Your task to perform on an android device: change the clock display to show seconds Image 0: 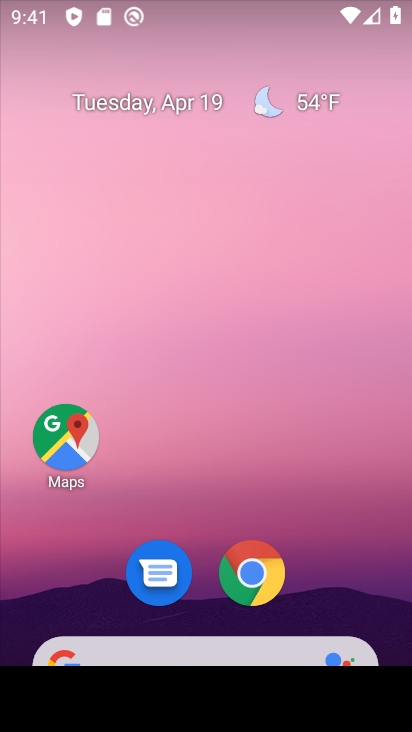
Step 0: drag from (250, 597) to (291, 189)
Your task to perform on an android device: change the clock display to show seconds Image 1: 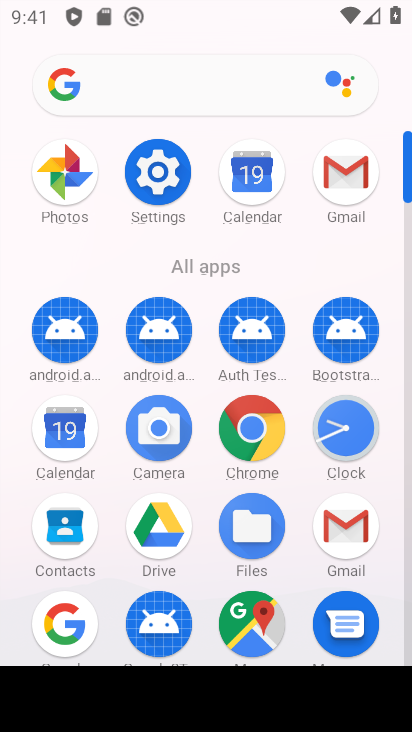
Step 1: click (346, 432)
Your task to perform on an android device: change the clock display to show seconds Image 2: 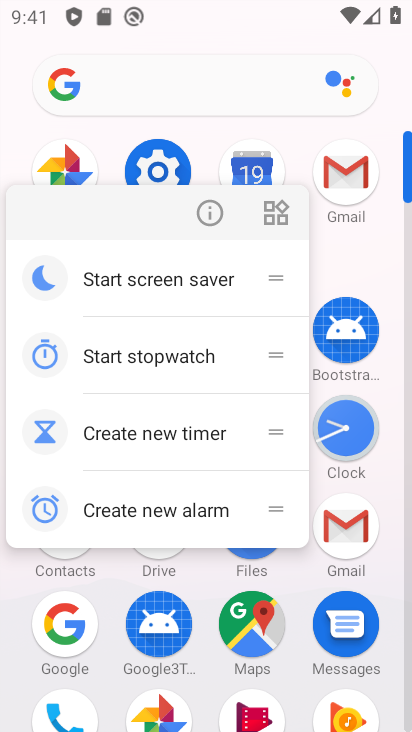
Step 2: click (346, 432)
Your task to perform on an android device: change the clock display to show seconds Image 3: 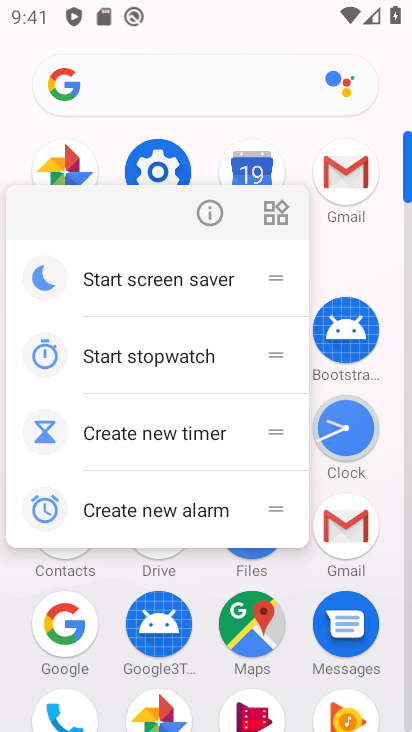
Step 3: click (359, 441)
Your task to perform on an android device: change the clock display to show seconds Image 4: 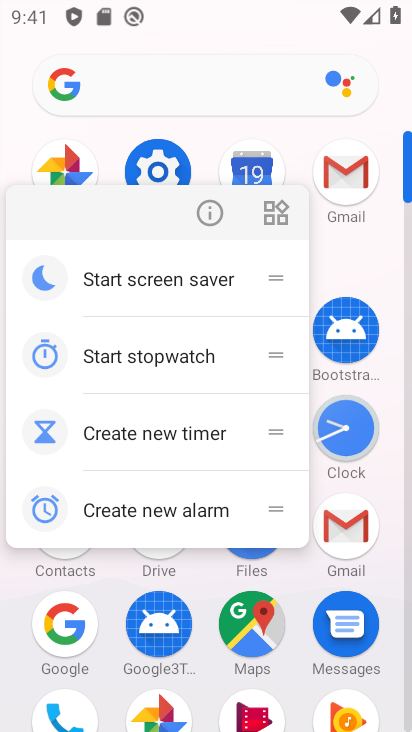
Step 4: click (347, 418)
Your task to perform on an android device: change the clock display to show seconds Image 5: 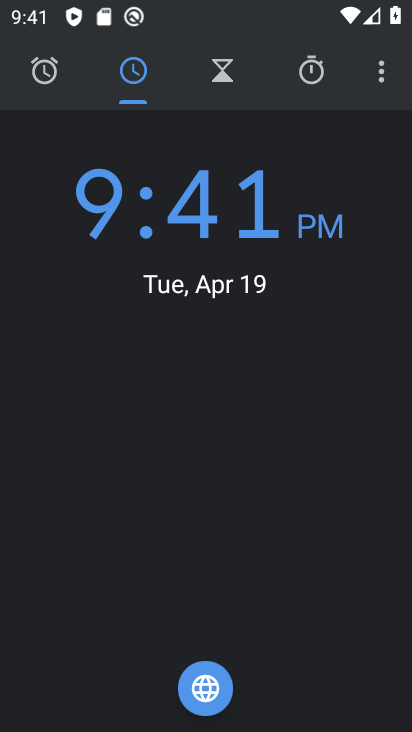
Step 5: click (381, 77)
Your task to perform on an android device: change the clock display to show seconds Image 6: 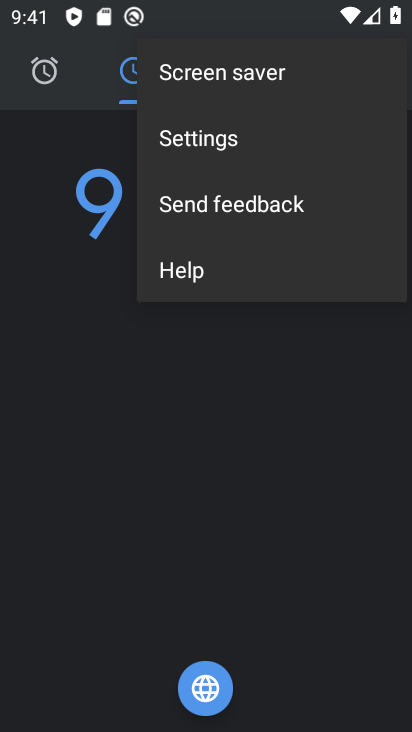
Step 6: click (222, 141)
Your task to perform on an android device: change the clock display to show seconds Image 7: 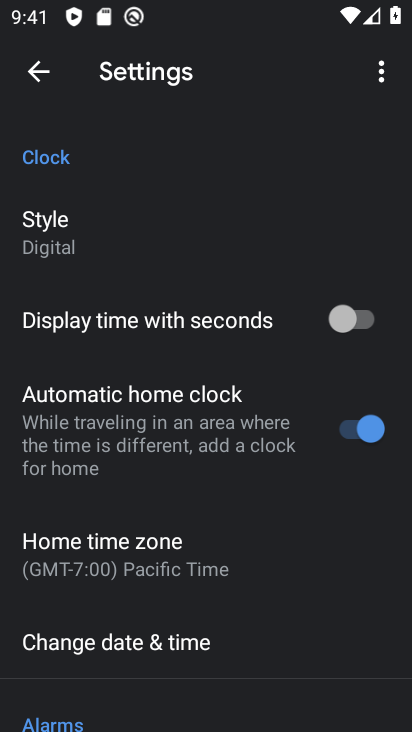
Step 7: click (363, 326)
Your task to perform on an android device: change the clock display to show seconds Image 8: 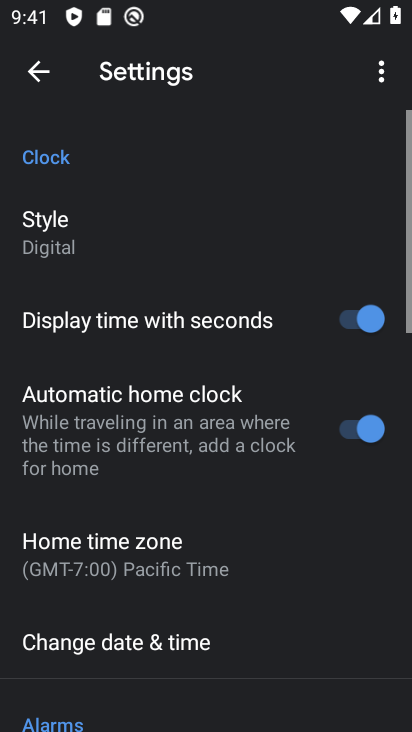
Step 8: task complete